Your task to perform on an android device: uninstall "PUBG MOBILE" Image 0: 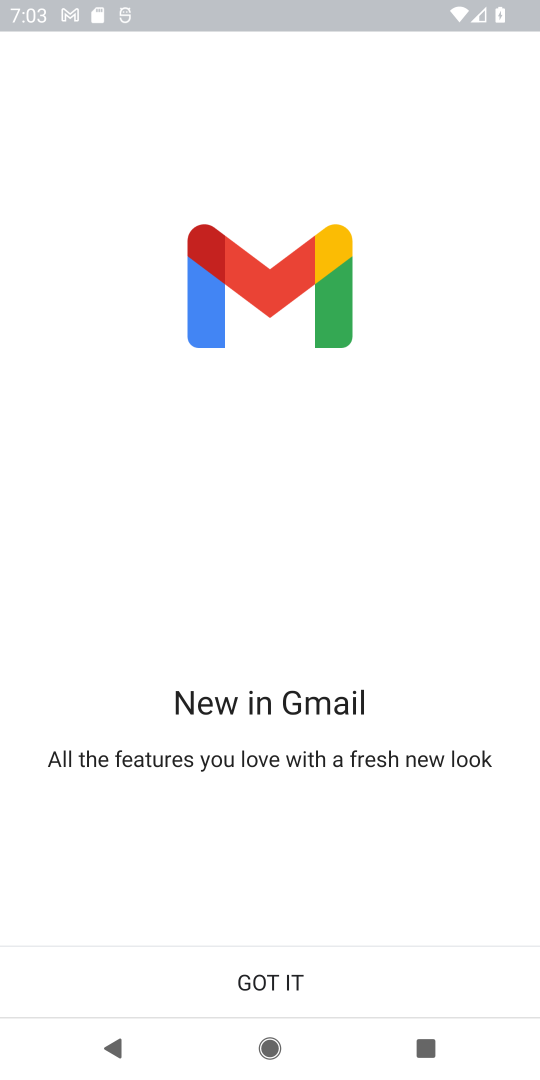
Step 0: press home button
Your task to perform on an android device: uninstall "PUBG MOBILE" Image 1: 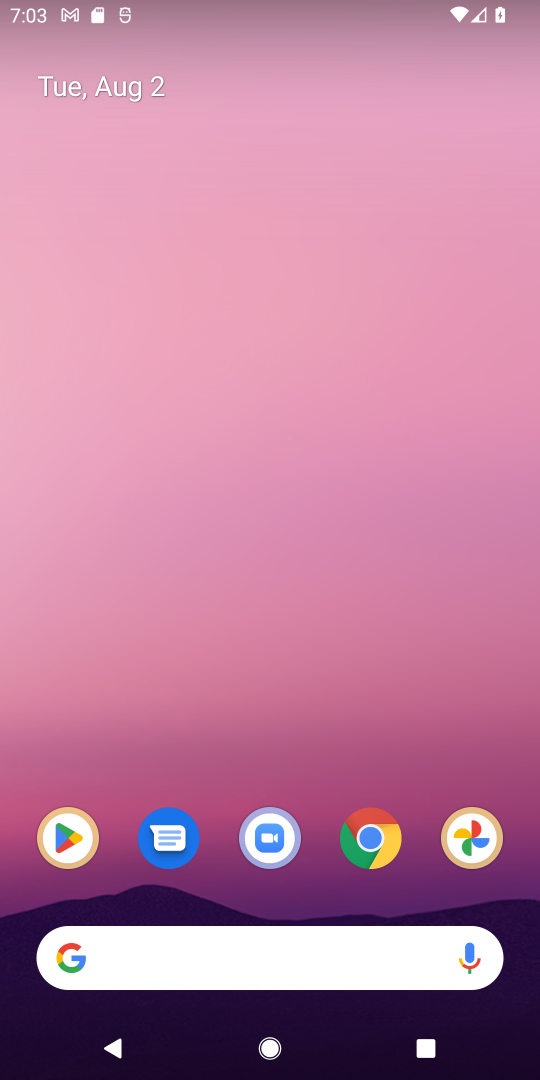
Step 1: click (59, 827)
Your task to perform on an android device: uninstall "PUBG MOBILE" Image 2: 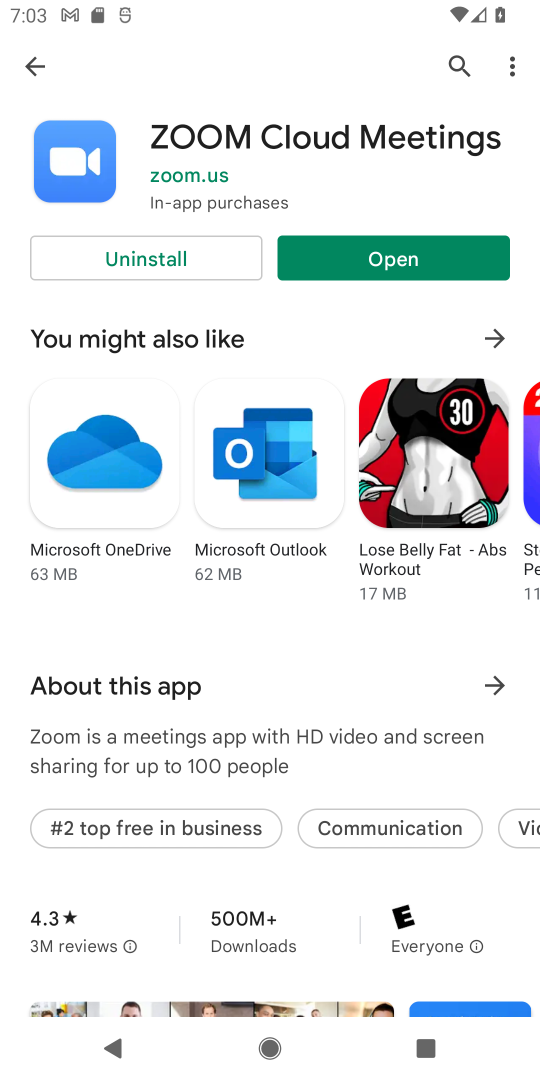
Step 2: click (463, 69)
Your task to perform on an android device: uninstall "PUBG MOBILE" Image 3: 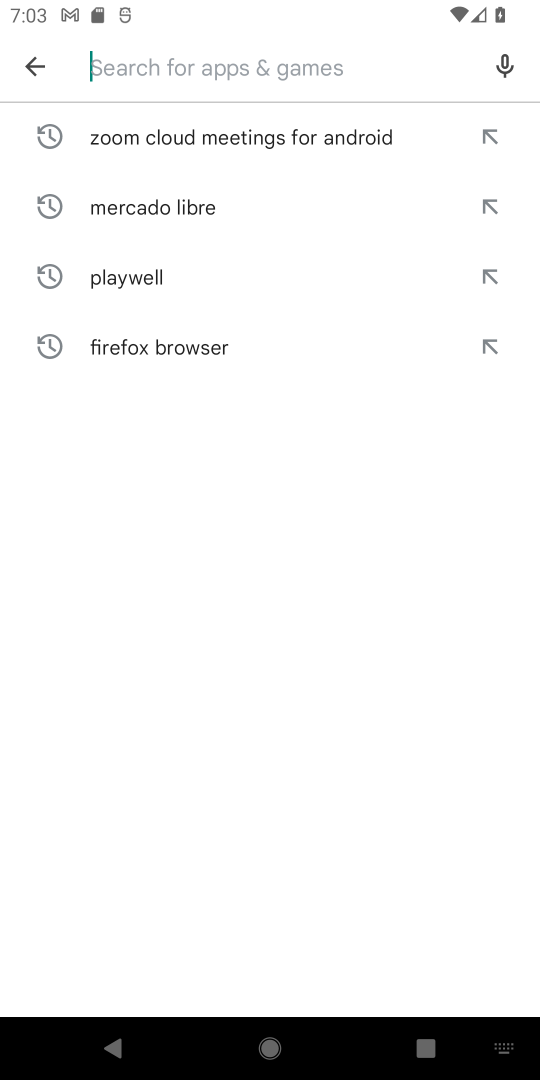
Step 3: type "pubg mobile"
Your task to perform on an android device: uninstall "PUBG MOBILE" Image 4: 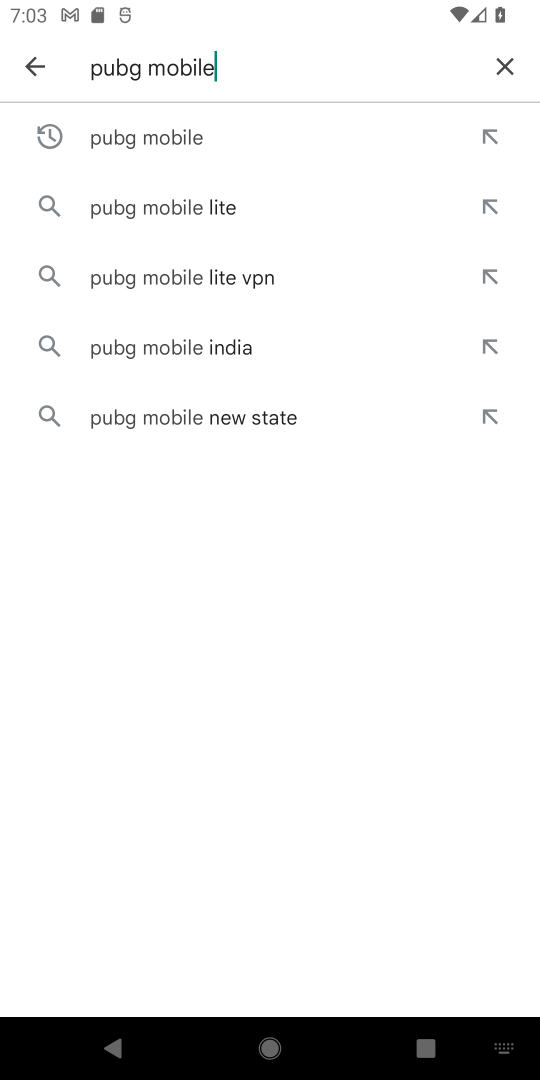
Step 4: click (340, 136)
Your task to perform on an android device: uninstall "PUBG MOBILE" Image 5: 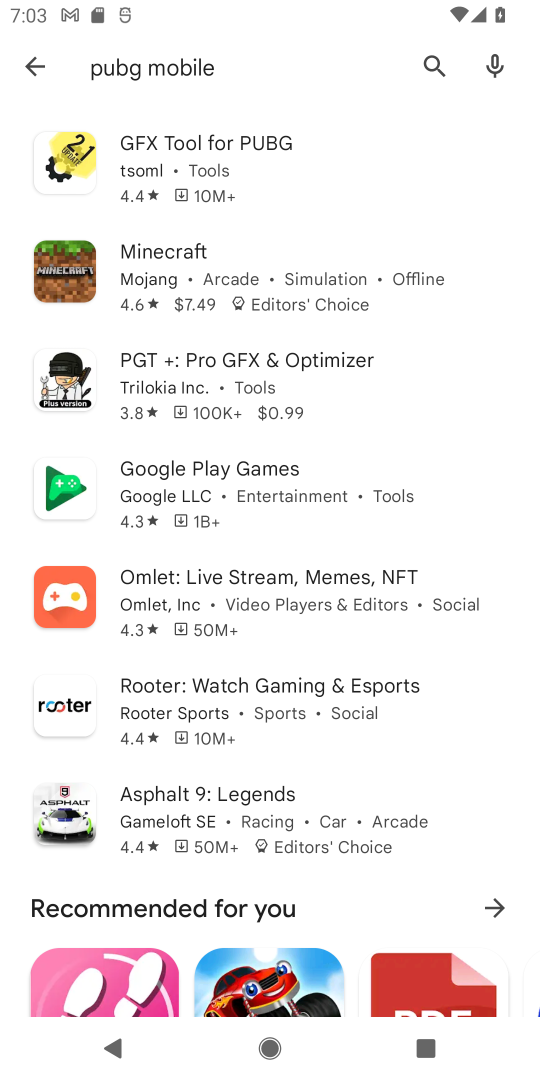
Step 5: task complete